Your task to perform on an android device: Open Wikipedia Image 0: 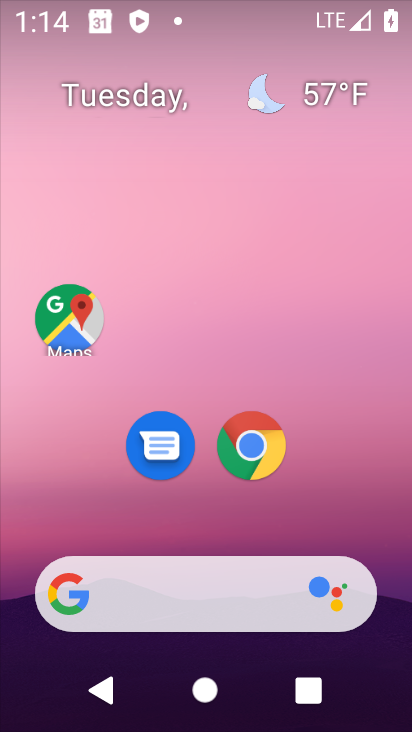
Step 0: drag from (364, 543) to (373, 160)
Your task to perform on an android device: Open Wikipedia Image 1: 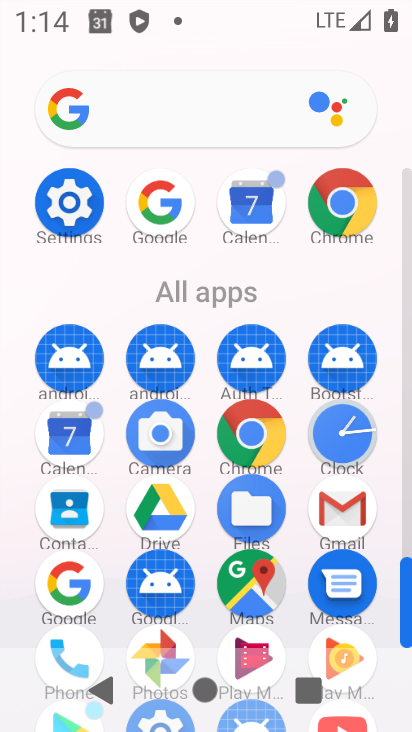
Step 1: click (261, 433)
Your task to perform on an android device: Open Wikipedia Image 2: 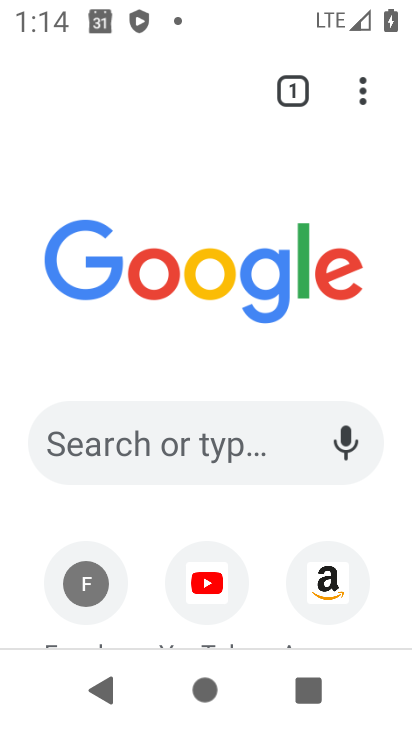
Step 2: click (215, 450)
Your task to perform on an android device: Open Wikipedia Image 3: 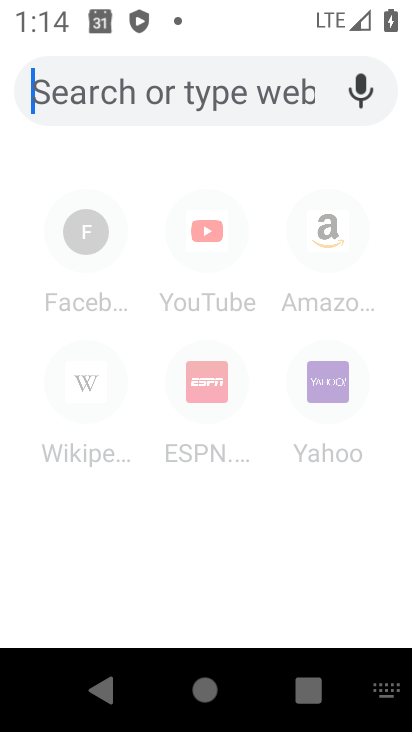
Step 3: type "wikipedia"
Your task to perform on an android device: Open Wikipedia Image 4: 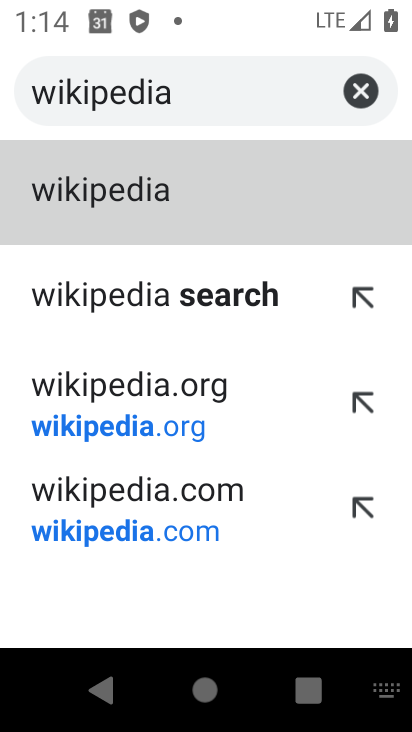
Step 4: click (187, 213)
Your task to perform on an android device: Open Wikipedia Image 5: 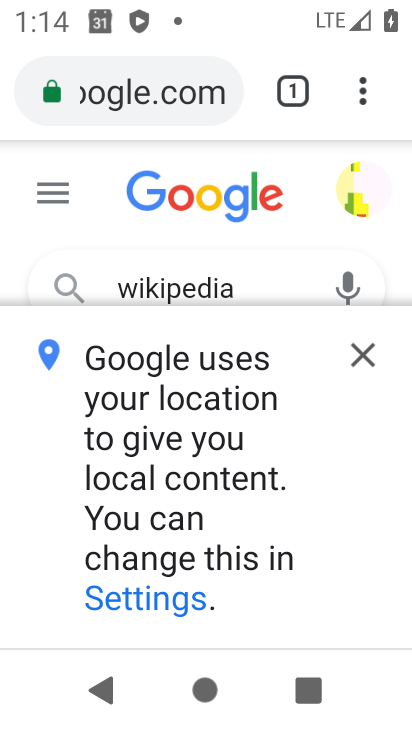
Step 5: task complete